Your task to perform on an android device: What is the recent news? Image 0: 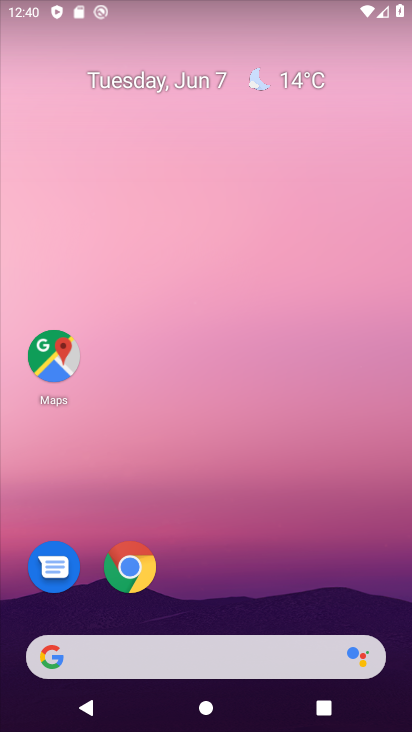
Step 0: click (167, 653)
Your task to perform on an android device: What is the recent news? Image 1: 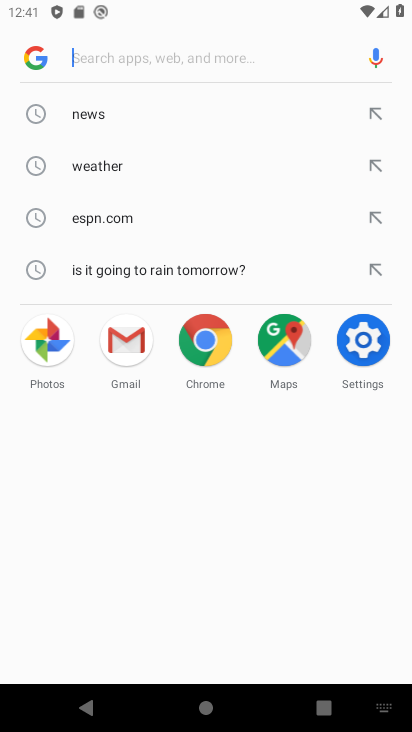
Step 1: type "what is the recent news"
Your task to perform on an android device: What is the recent news? Image 2: 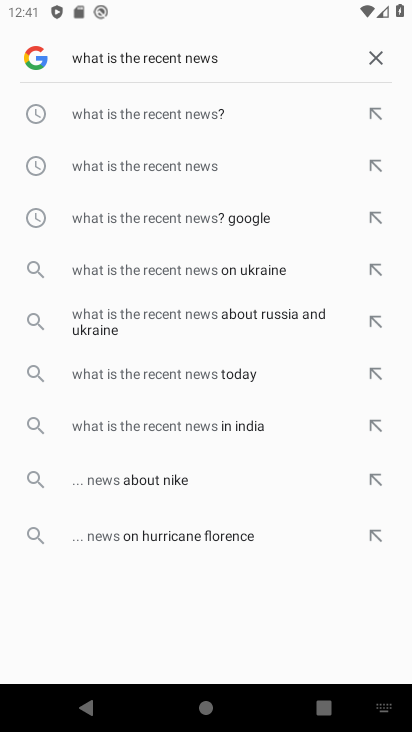
Step 2: click (135, 108)
Your task to perform on an android device: What is the recent news? Image 3: 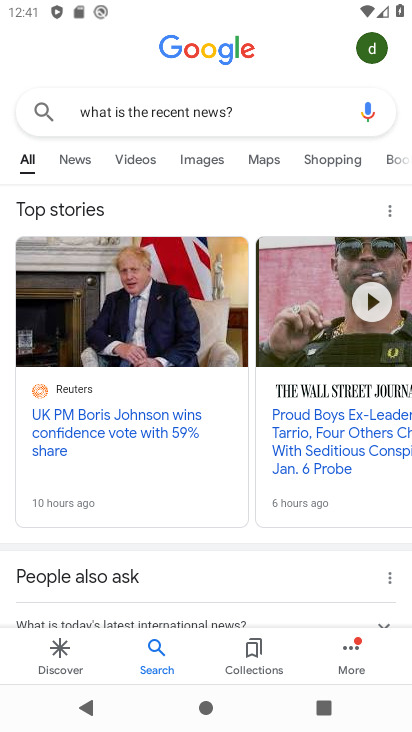
Step 3: click (77, 156)
Your task to perform on an android device: What is the recent news? Image 4: 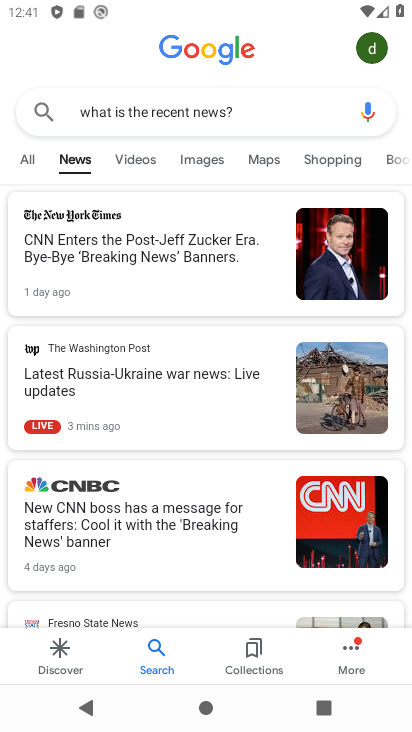
Step 4: task complete